Your task to perform on an android device: Go to sound settings Image 0: 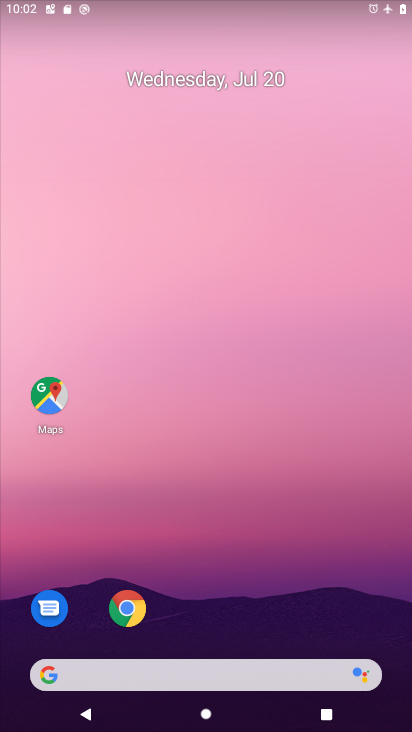
Step 0: drag from (224, 617) to (203, 172)
Your task to perform on an android device: Go to sound settings Image 1: 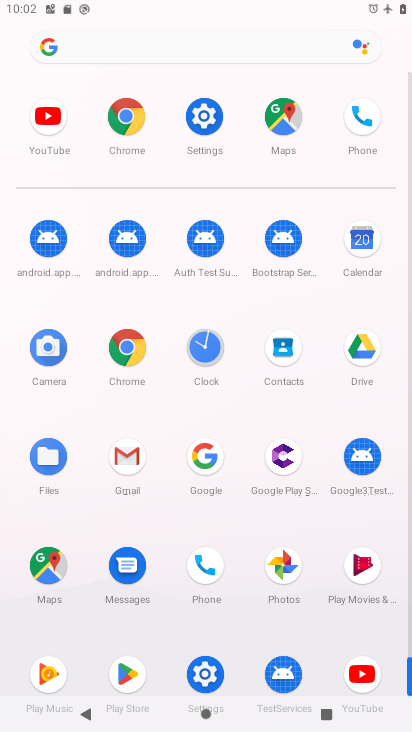
Step 1: click (193, 114)
Your task to perform on an android device: Go to sound settings Image 2: 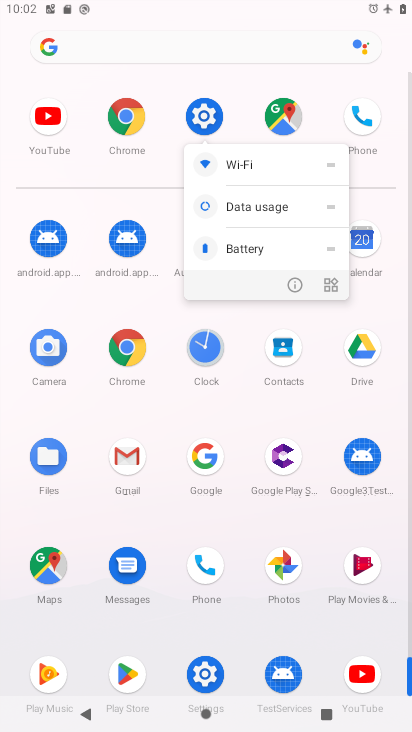
Step 2: click (198, 114)
Your task to perform on an android device: Go to sound settings Image 3: 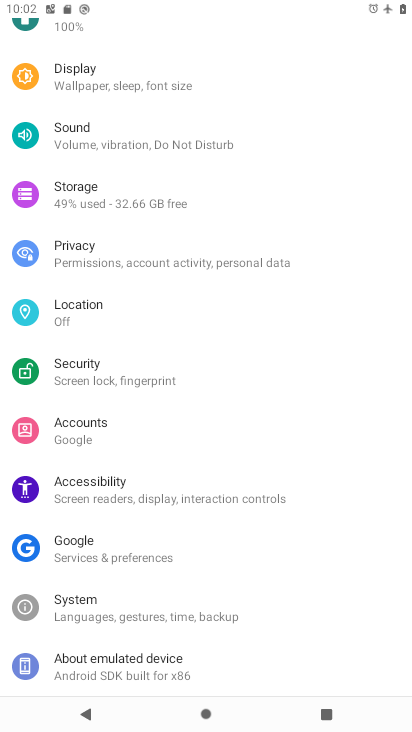
Step 3: click (96, 124)
Your task to perform on an android device: Go to sound settings Image 4: 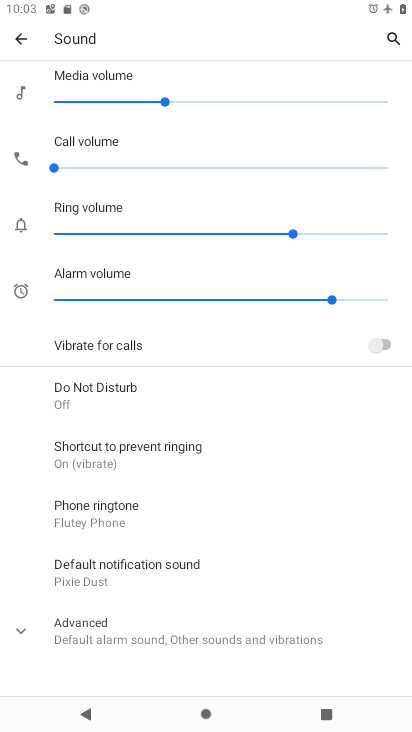
Step 4: task complete